Your task to perform on an android device: check storage Image 0: 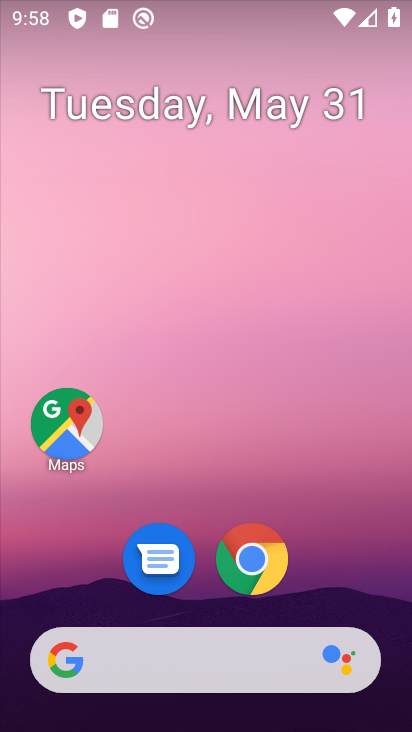
Step 0: drag from (54, 637) to (285, 147)
Your task to perform on an android device: check storage Image 1: 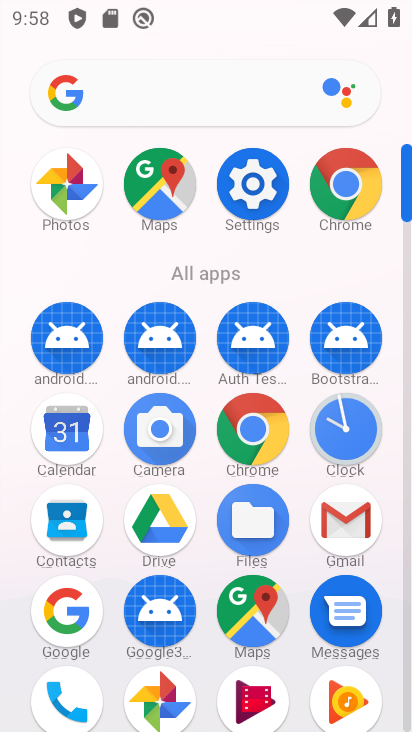
Step 1: drag from (157, 670) to (252, 295)
Your task to perform on an android device: check storage Image 2: 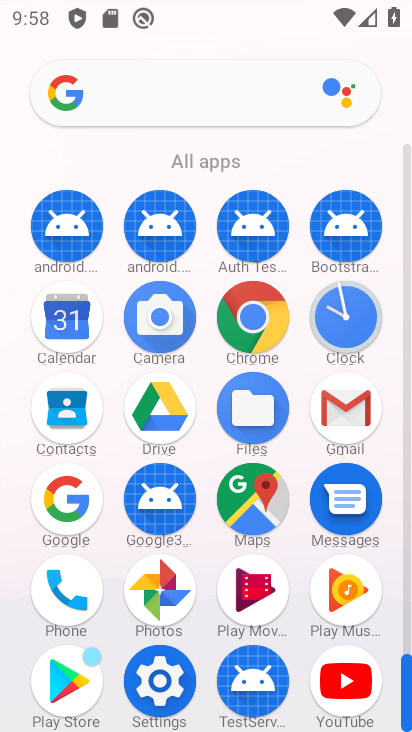
Step 2: click (161, 689)
Your task to perform on an android device: check storage Image 3: 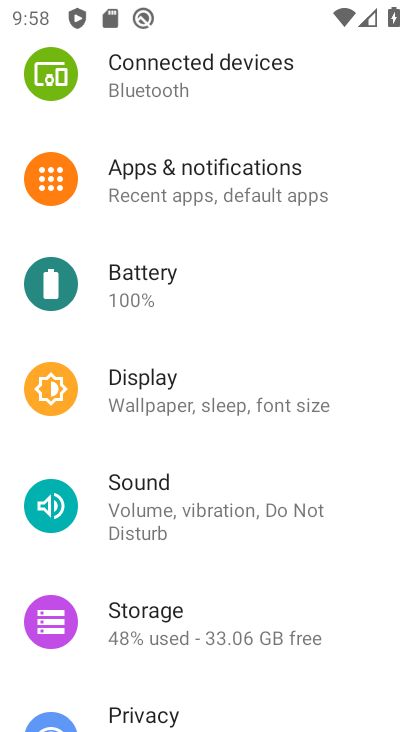
Step 3: click (163, 619)
Your task to perform on an android device: check storage Image 4: 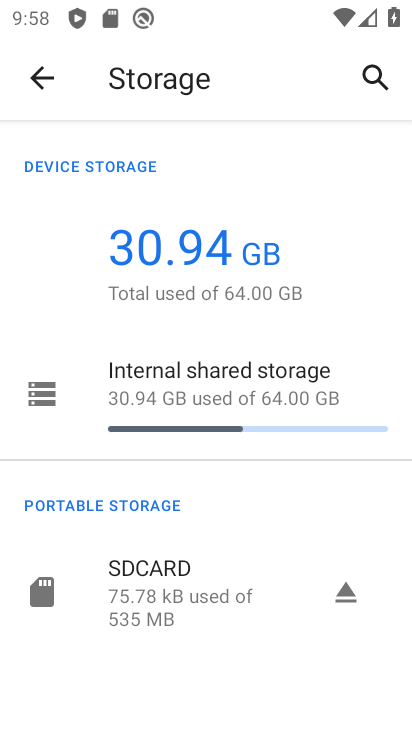
Step 4: task complete